Your task to perform on an android device: Go to Google Image 0: 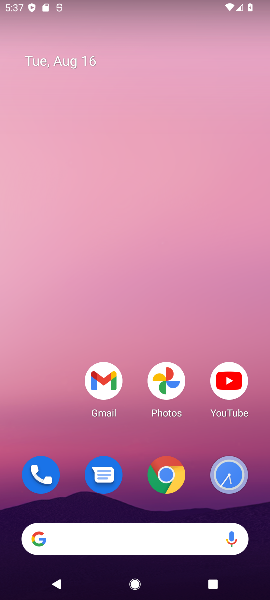
Step 0: drag from (125, 470) to (44, 2)
Your task to perform on an android device: Go to Google Image 1: 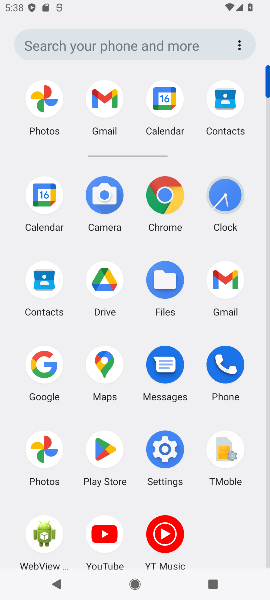
Step 1: click (52, 369)
Your task to perform on an android device: Go to Google Image 2: 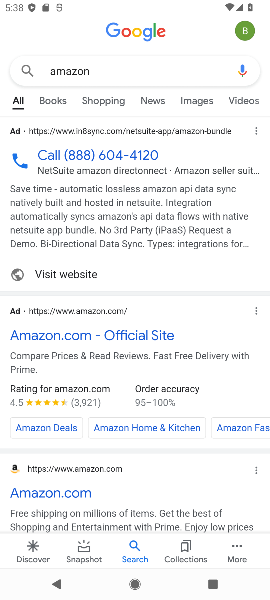
Step 2: task complete